Your task to perform on an android device: move an email to a new category in the gmail app Image 0: 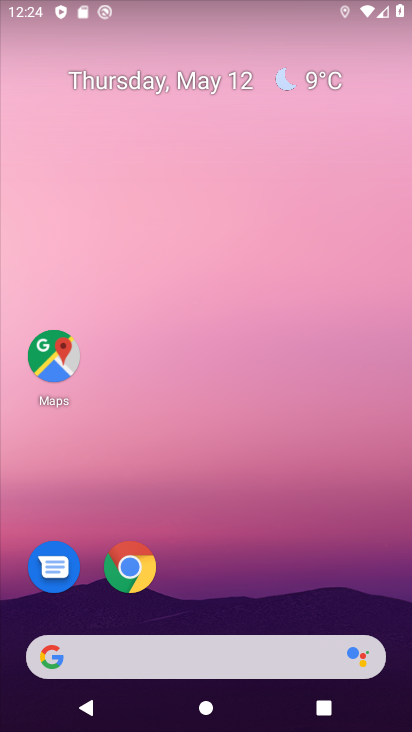
Step 0: drag from (167, 632) to (252, 195)
Your task to perform on an android device: move an email to a new category in the gmail app Image 1: 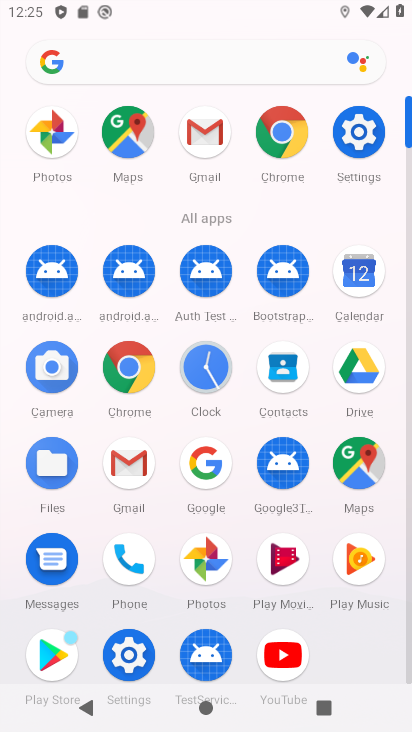
Step 1: click (133, 472)
Your task to perform on an android device: move an email to a new category in the gmail app Image 2: 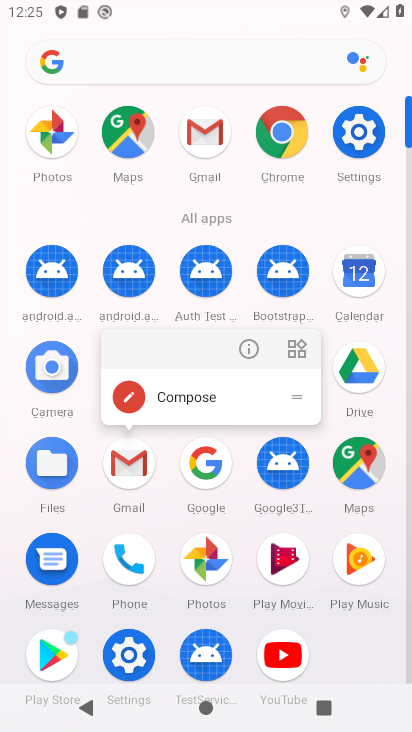
Step 2: click (133, 470)
Your task to perform on an android device: move an email to a new category in the gmail app Image 3: 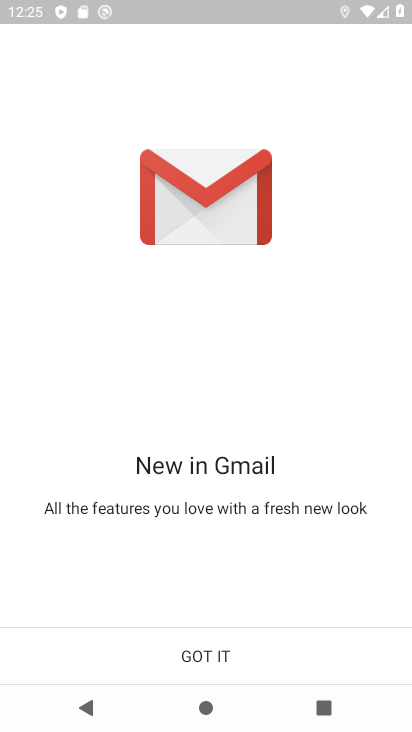
Step 3: click (175, 654)
Your task to perform on an android device: move an email to a new category in the gmail app Image 4: 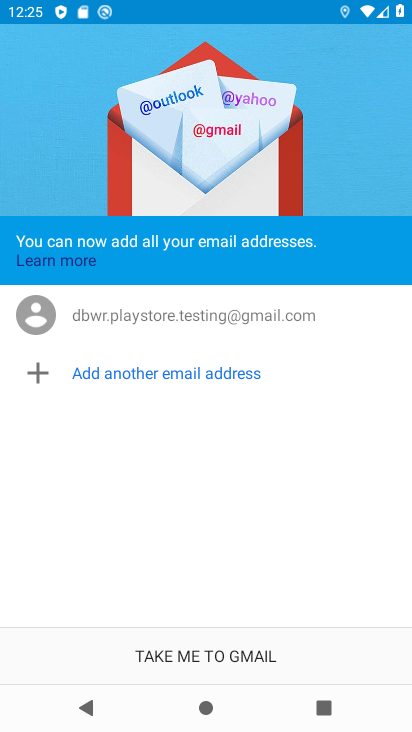
Step 4: click (174, 652)
Your task to perform on an android device: move an email to a new category in the gmail app Image 5: 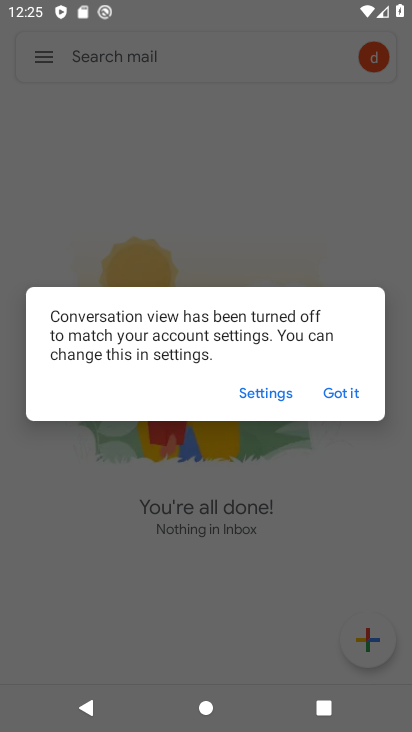
Step 5: click (332, 387)
Your task to perform on an android device: move an email to a new category in the gmail app Image 6: 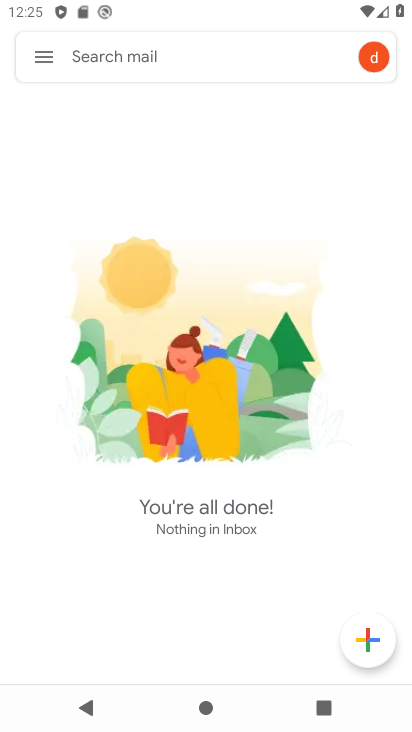
Step 6: click (49, 59)
Your task to perform on an android device: move an email to a new category in the gmail app Image 7: 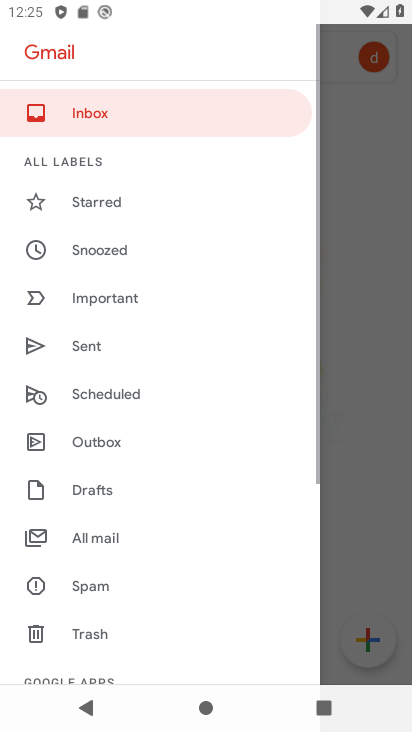
Step 7: click (116, 540)
Your task to perform on an android device: move an email to a new category in the gmail app Image 8: 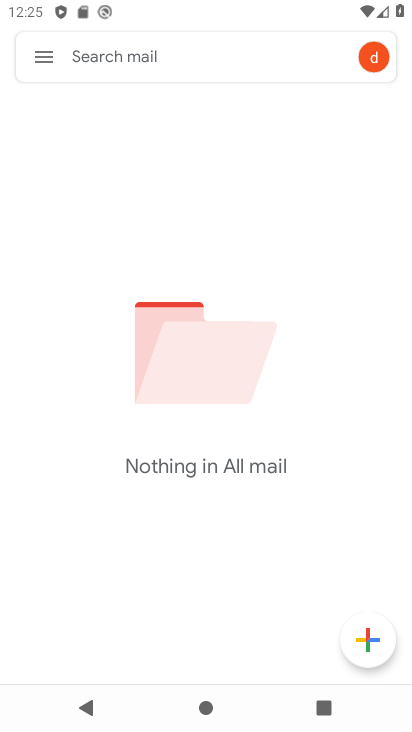
Step 8: task complete